Your task to perform on an android device: Open calendar and show me the second week of next month Image 0: 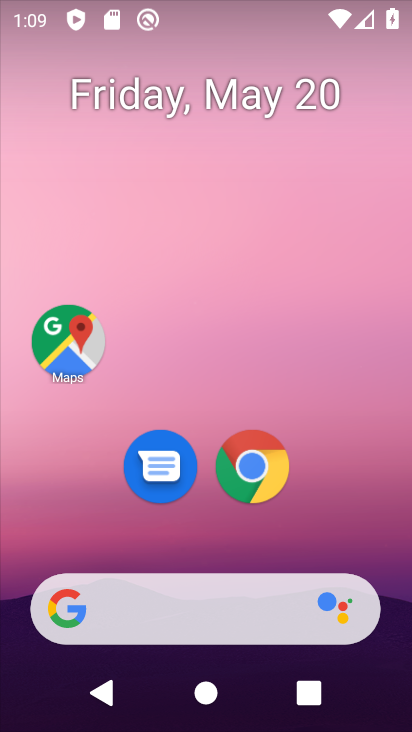
Step 0: drag from (220, 549) to (242, 177)
Your task to perform on an android device: Open calendar and show me the second week of next month Image 1: 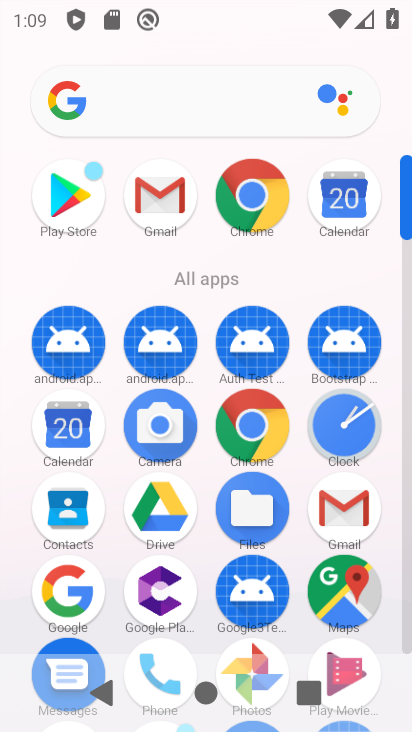
Step 1: click (331, 193)
Your task to perform on an android device: Open calendar and show me the second week of next month Image 2: 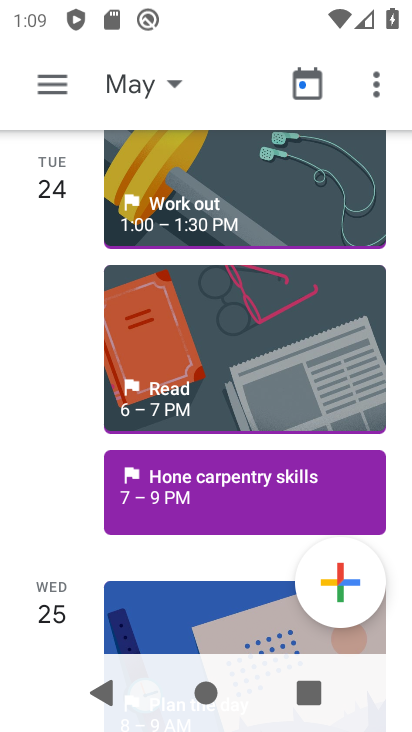
Step 2: click (147, 89)
Your task to perform on an android device: Open calendar and show me the second week of next month Image 3: 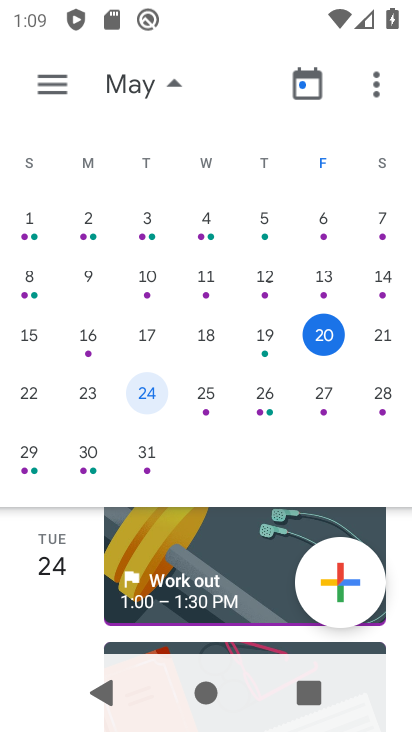
Step 3: drag from (368, 277) to (1, 261)
Your task to perform on an android device: Open calendar and show me the second week of next month Image 4: 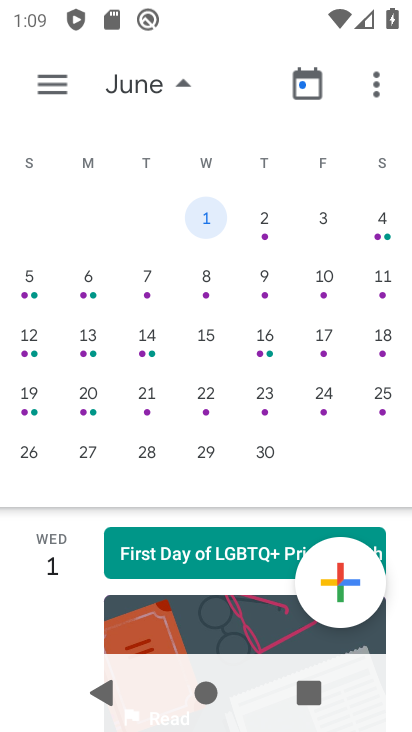
Step 4: click (25, 274)
Your task to perform on an android device: Open calendar and show me the second week of next month Image 5: 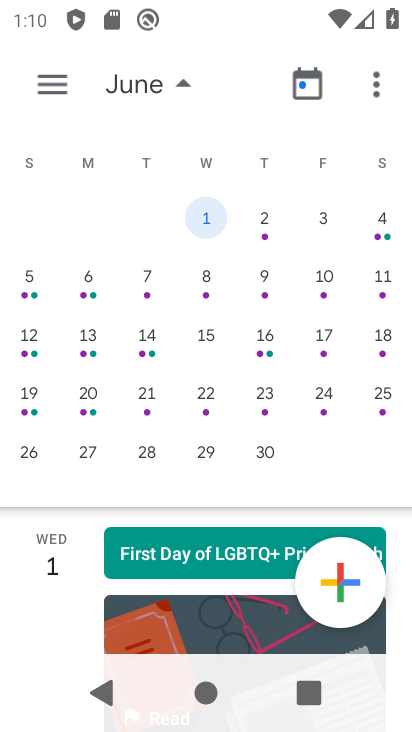
Step 5: task complete